Your task to perform on an android device: Open Google Maps and go to "Timeline" Image 0: 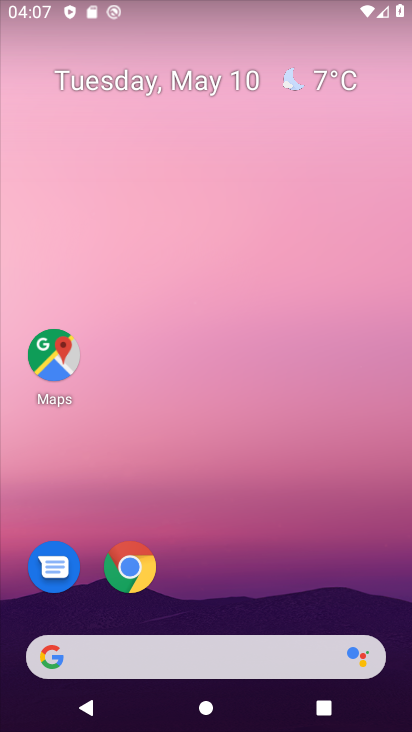
Step 0: click (52, 358)
Your task to perform on an android device: Open Google Maps and go to "Timeline" Image 1: 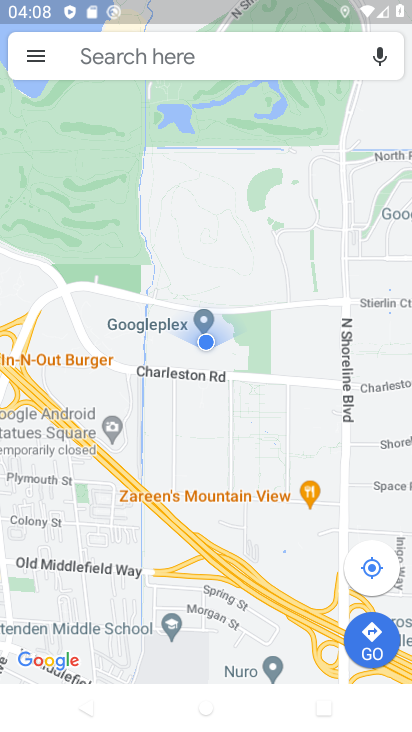
Step 1: click (35, 58)
Your task to perform on an android device: Open Google Maps and go to "Timeline" Image 2: 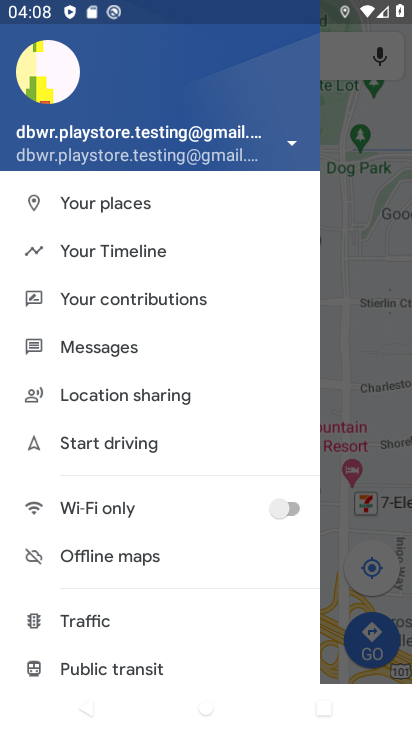
Step 2: click (148, 250)
Your task to perform on an android device: Open Google Maps and go to "Timeline" Image 3: 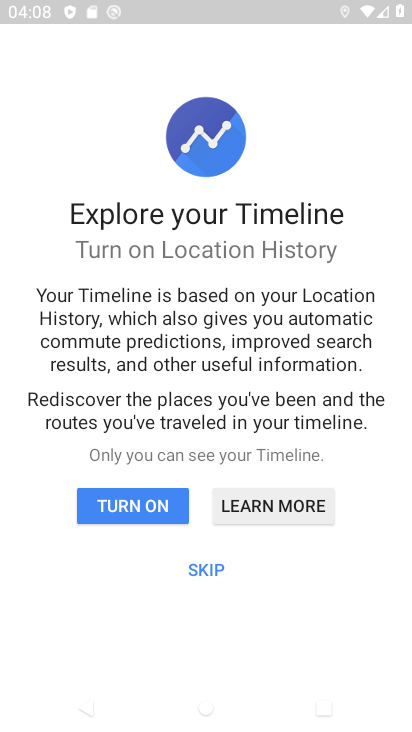
Step 3: click (204, 567)
Your task to perform on an android device: Open Google Maps and go to "Timeline" Image 4: 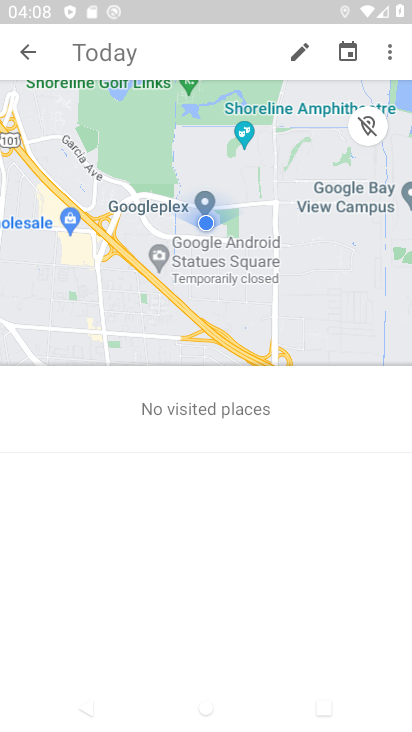
Step 4: task complete